Your task to perform on an android device: open a bookmark in the chrome app Image 0: 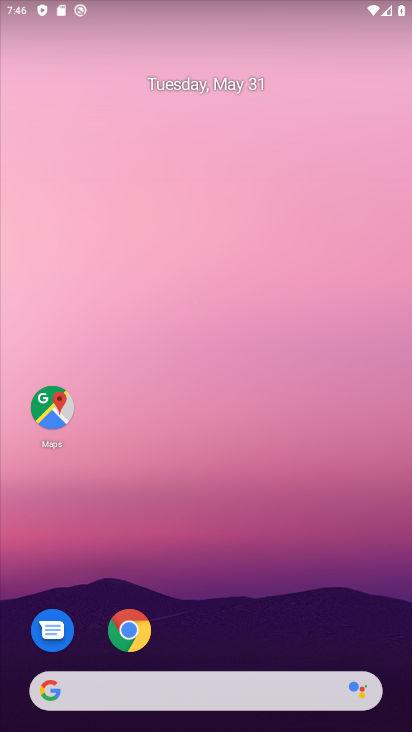
Step 0: press home button
Your task to perform on an android device: open a bookmark in the chrome app Image 1: 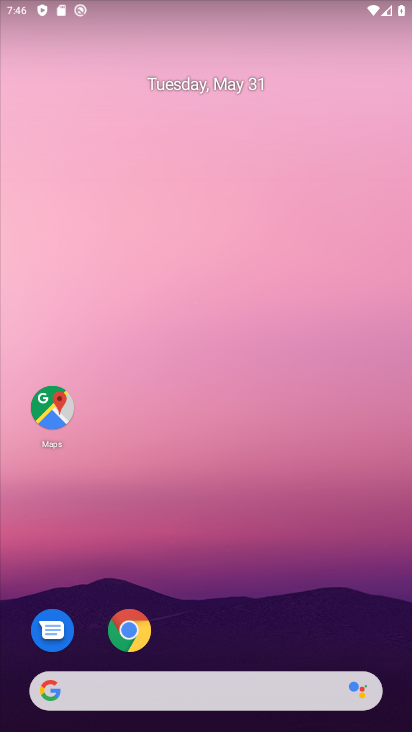
Step 1: click (135, 640)
Your task to perform on an android device: open a bookmark in the chrome app Image 2: 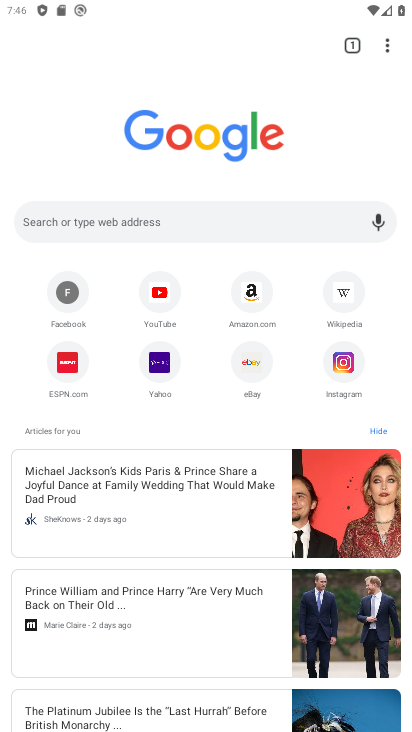
Step 2: drag from (387, 51) to (230, 176)
Your task to perform on an android device: open a bookmark in the chrome app Image 3: 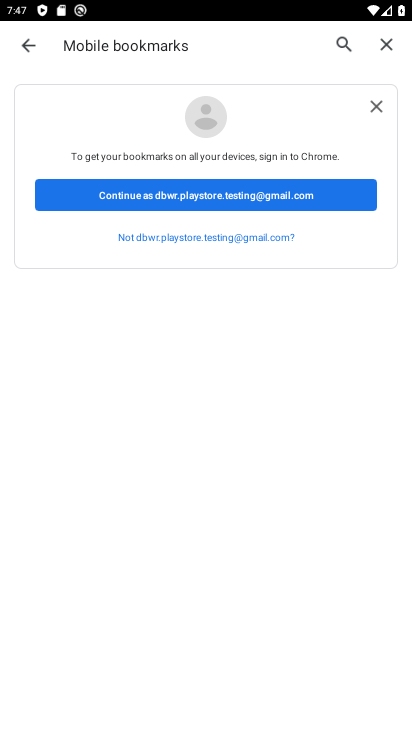
Step 3: click (194, 201)
Your task to perform on an android device: open a bookmark in the chrome app Image 4: 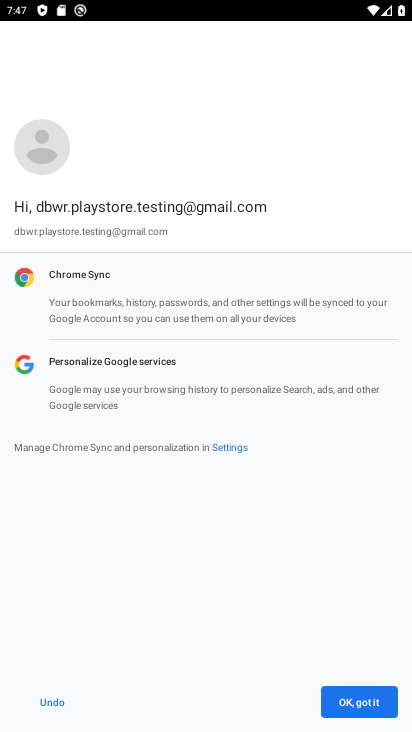
Step 4: click (339, 703)
Your task to perform on an android device: open a bookmark in the chrome app Image 5: 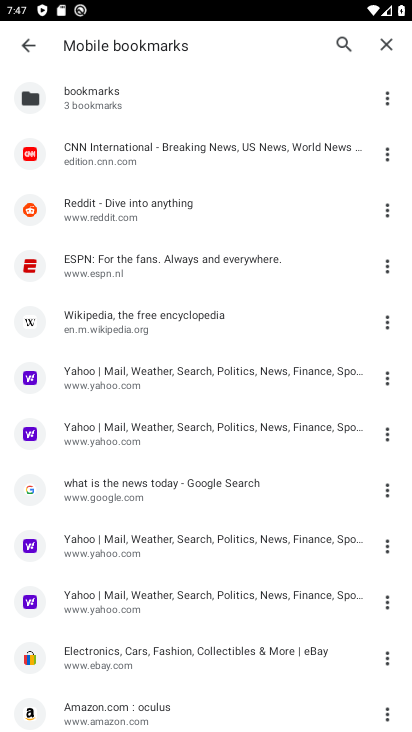
Step 5: click (141, 149)
Your task to perform on an android device: open a bookmark in the chrome app Image 6: 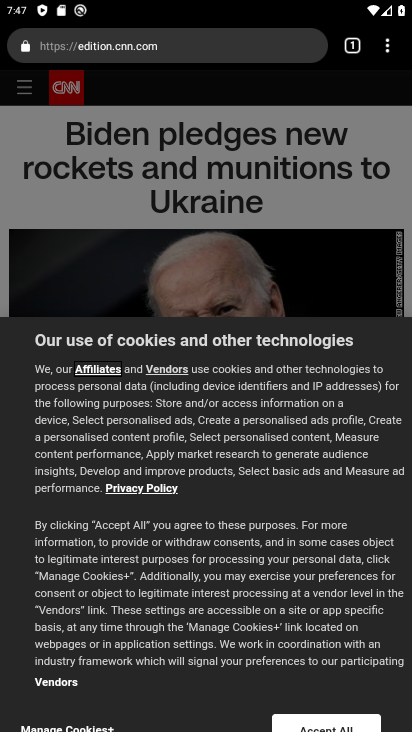
Step 6: task complete